Your task to perform on an android device: turn on improve location accuracy Image 0: 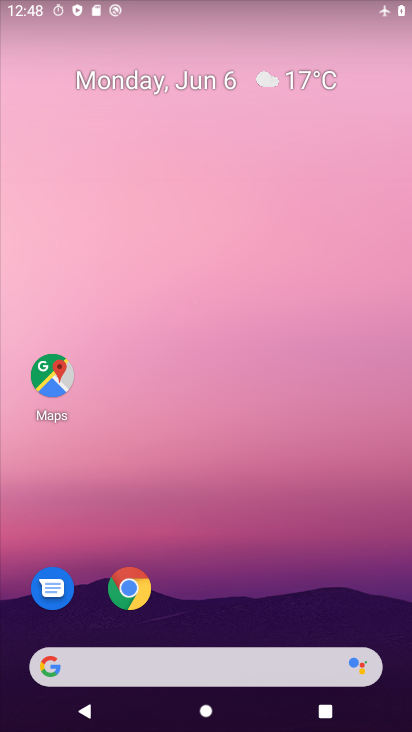
Step 0: drag from (279, 469) to (285, 43)
Your task to perform on an android device: turn on improve location accuracy Image 1: 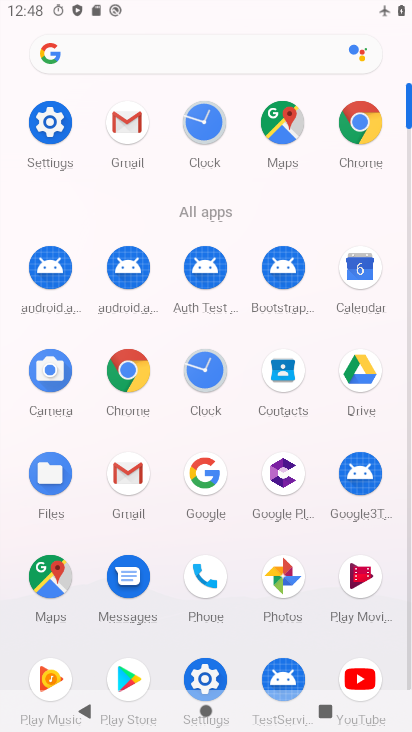
Step 1: click (56, 118)
Your task to perform on an android device: turn on improve location accuracy Image 2: 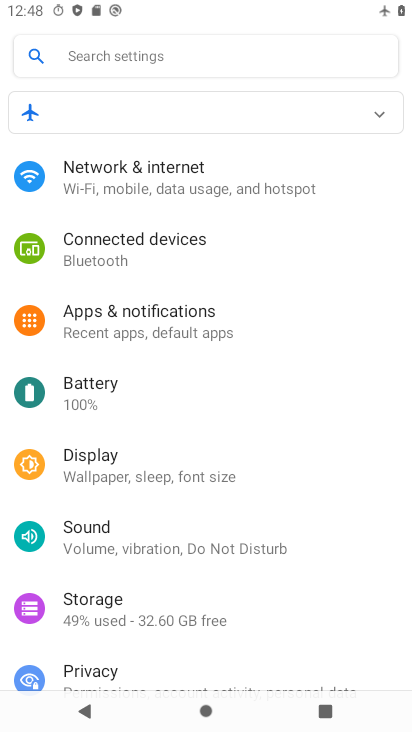
Step 2: drag from (241, 597) to (300, 260)
Your task to perform on an android device: turn on improve location accuracy Image 3: 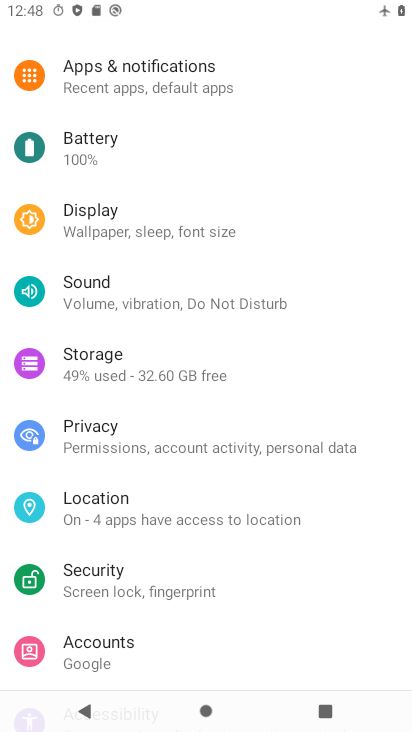
Step 3: click (167, 517)
Your task to perform on an android device: turn on improve location accuracy Image 4: 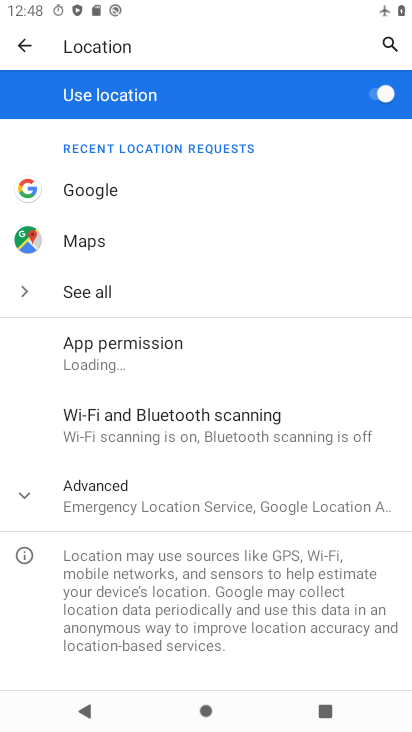
Step 4: click (150, 499)
Your task to perform on an android device: turn on improve location accuracy Image 5: 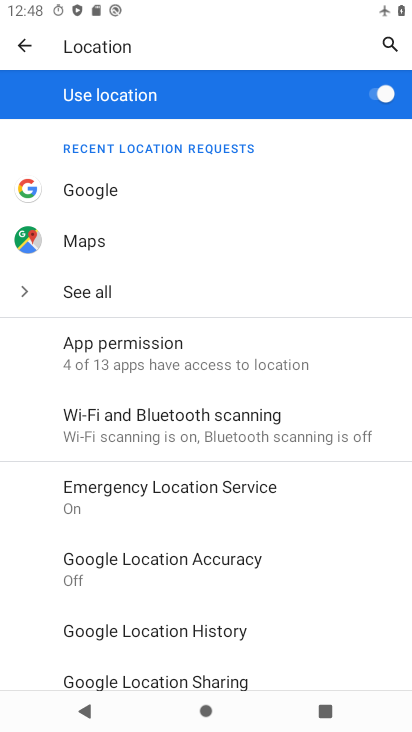
Step 5: click (221, 560)
Your task to perform on an android device: turn on improve location accuracy Image 6: 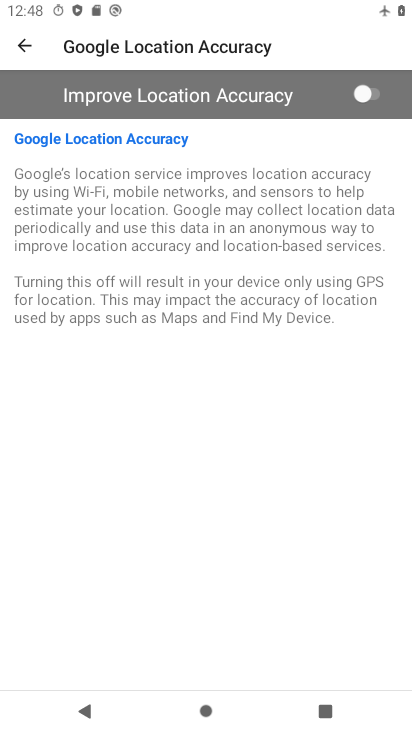
Step 6: click (382, 96)
Your task to perform on an android device: turn on improve location accuracy Image 7: 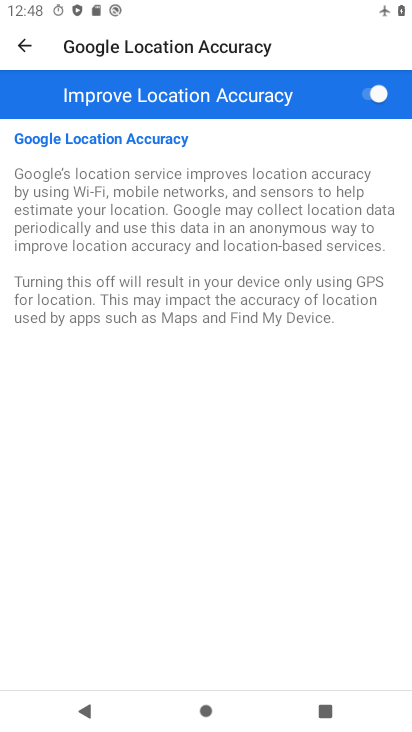
Step 7: task complete